Your task to perform on an android device: turn pop-ups off in chrome Image 0: 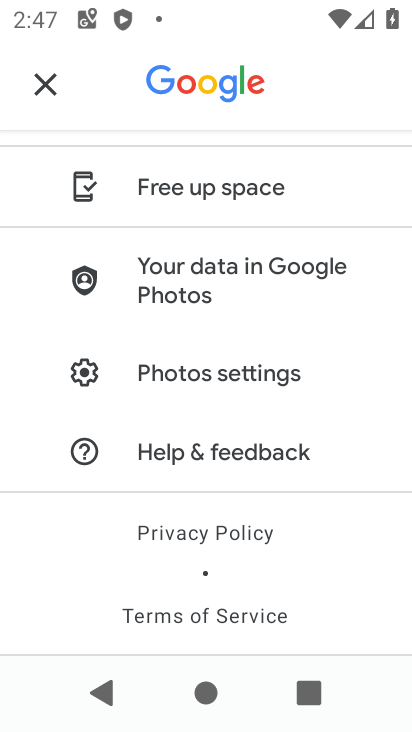
Step 0: press home button
Your task to perform on an android device: turn pop-ups off in chrome Image 1: 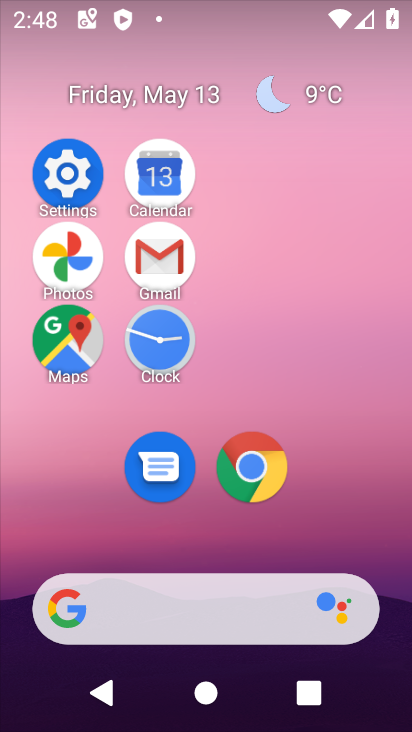
Step 1: click (263, 486)
Your task to perform on an android device: turn pop-ups off in chrome Image 2: 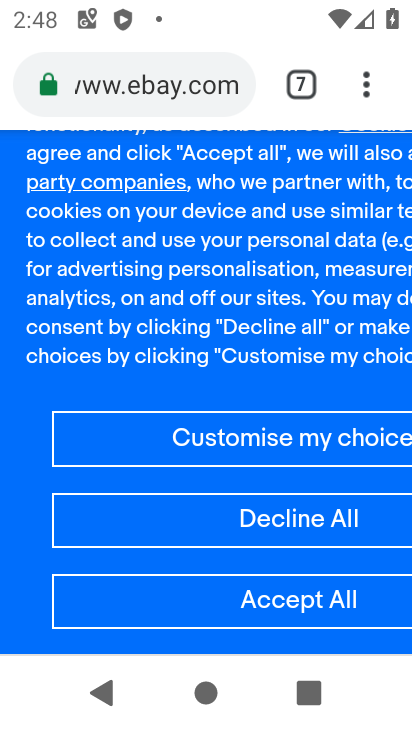
Step 2: click (374, 99)
Your task to perform on an android device: turn pop-ups off in chrome Image 3: 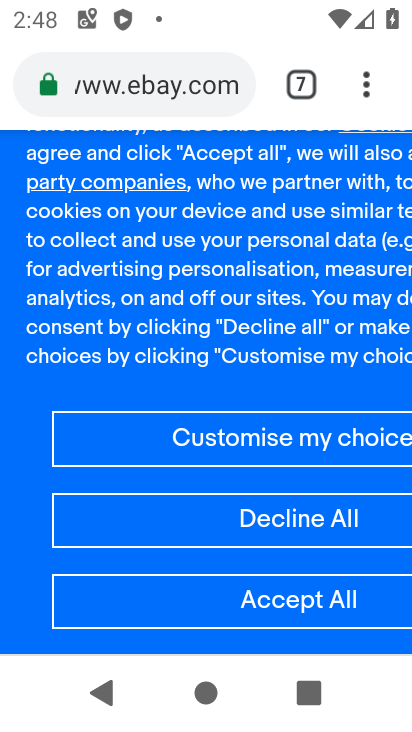
Step 3: click (377, 103)
Your task to perform on an android device: turn pop-ups off in chrome Image 4: 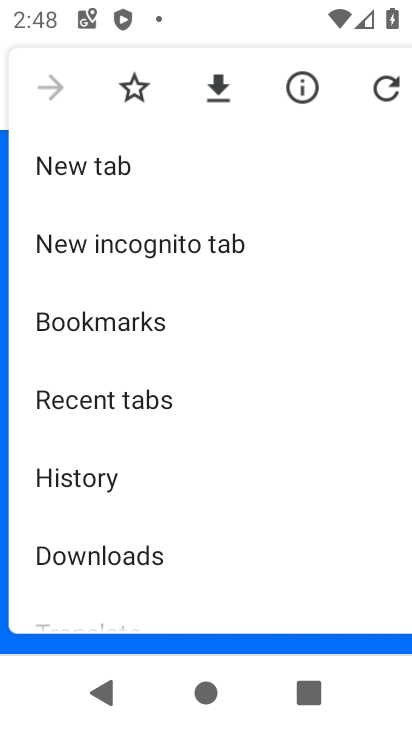
Step 4: drag from (212, 522) to (259, 121)
Your task to perform on an android device: turn pop-ups off in chrome Image 5: 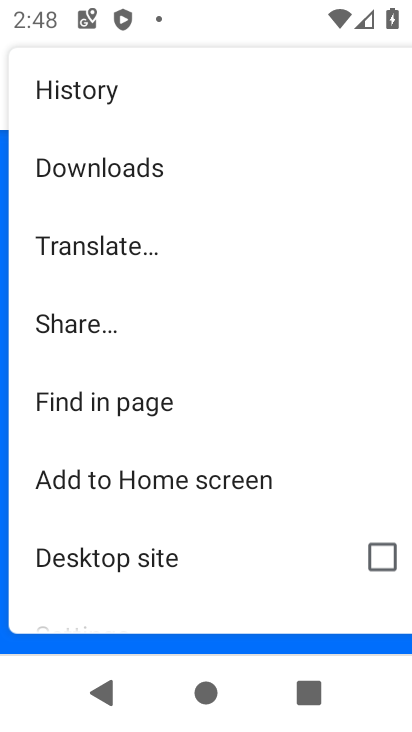
Step 5: drag from (205, 486) to (230, 176)
Your task to perform on an android device: turn pop-ups off in chrome Image 6: 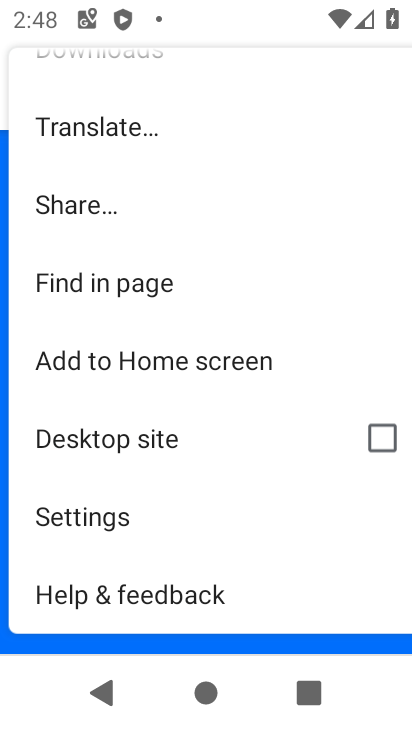
Step 6: click (153, 501)
Your task to perform on an android device: turn pop-ups off in chrome Image 7: 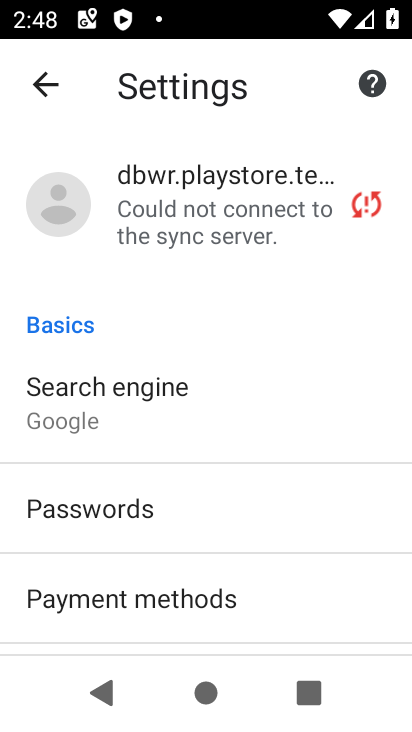
Step 7: drag from (204, 557) to (237, 202)
Your task to perform on an android device: turn pop-ups off in chrome Image 8: 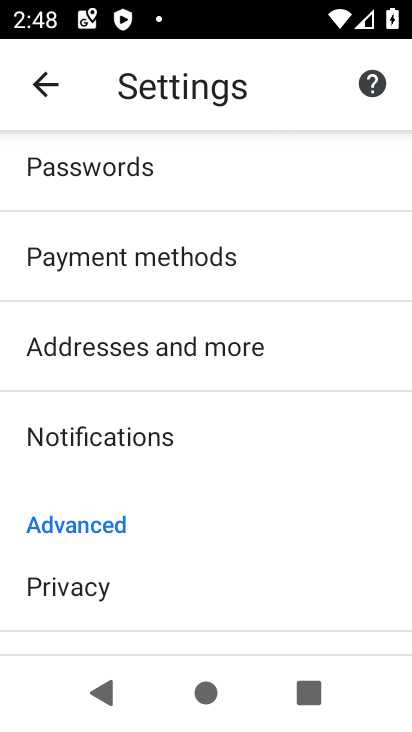
Step 8: drag from (251, 556) to (272, 180)
Your task to perform on an android device: turn pop-ups off in chrome Image 9: 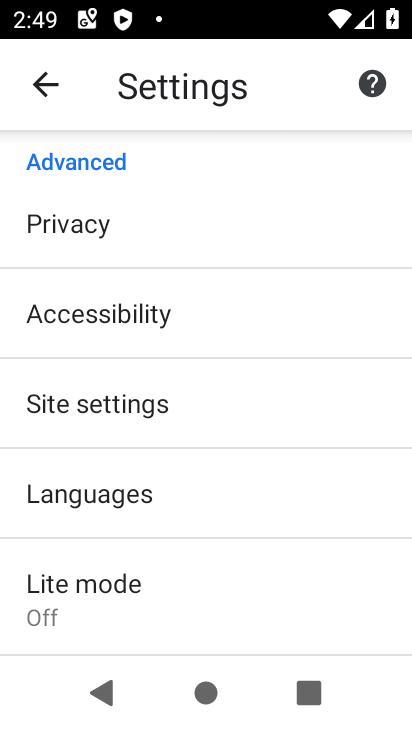
Step 9: click (247, 410)
Your task to perform on an android device: turn pop-ups off in chrome Image 10: 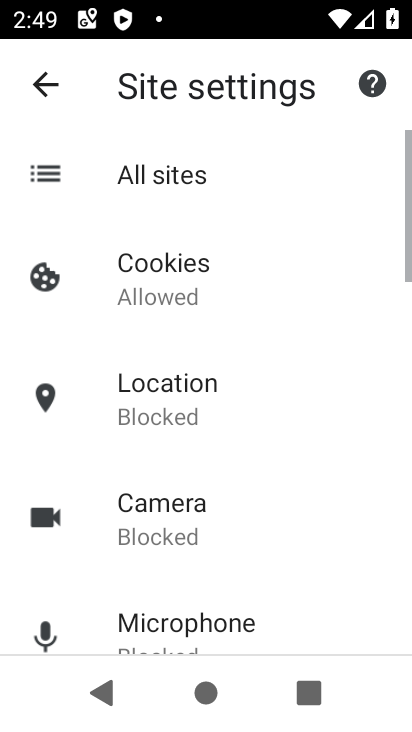
Step 10: drag from (246, 568) to (243, 181)
Your task to perform on an android device: turn pop-ups off in chrome Image 11: 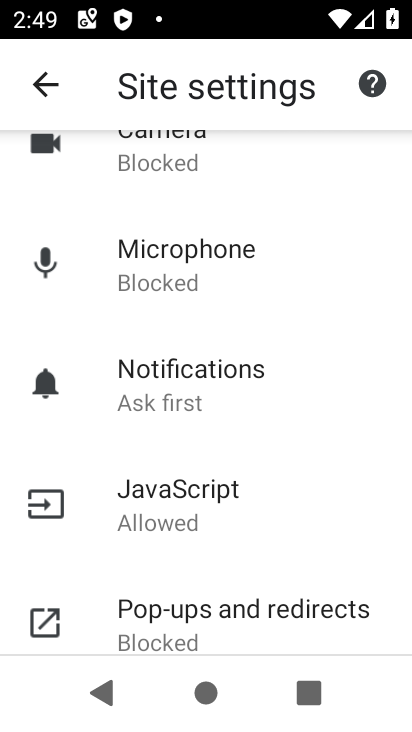
Step 11: drag from (267, 514) to (265, 212)
Your task to perform on an android device: turn pop-ups off in chrome Image 12: 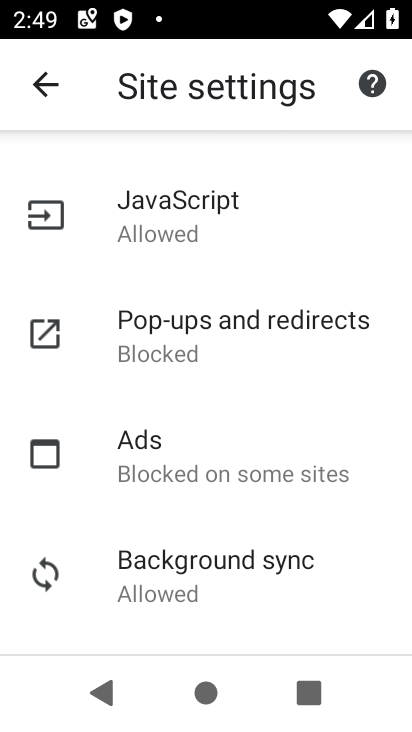
Step 12: click (247, 340)
Your task to perform on an android device: turn pop-ups off in chrome Image 13: 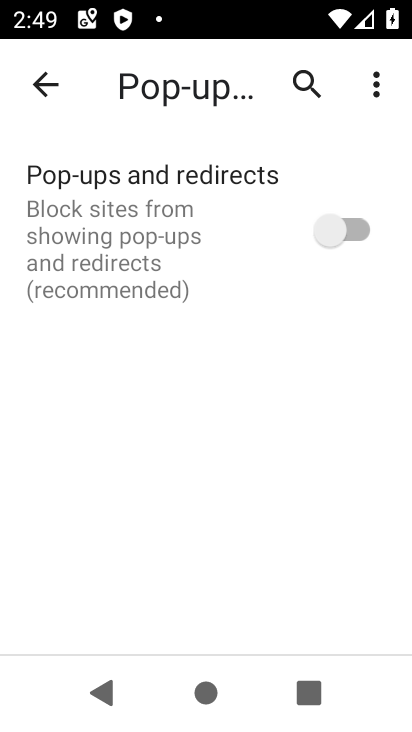
Step 13: task complete